Your task to perform on an android device: Clear the shopping cart on costco.com. Search for "logitech g903" on costco.com, select the first entry, and add it to the cart. Image 0: 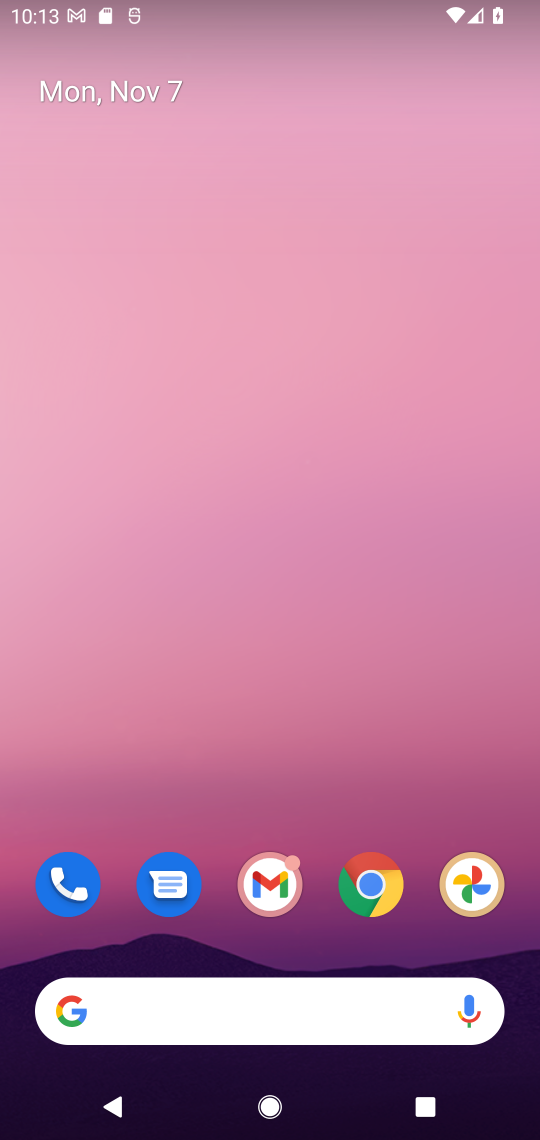
Step 0: click (379, 865)
Your task to perform on an android device: Clear the shopping cart on costco.com. Search for "logitech g903" on costco.com, select the first entry, and add it to the cart. Image 1: 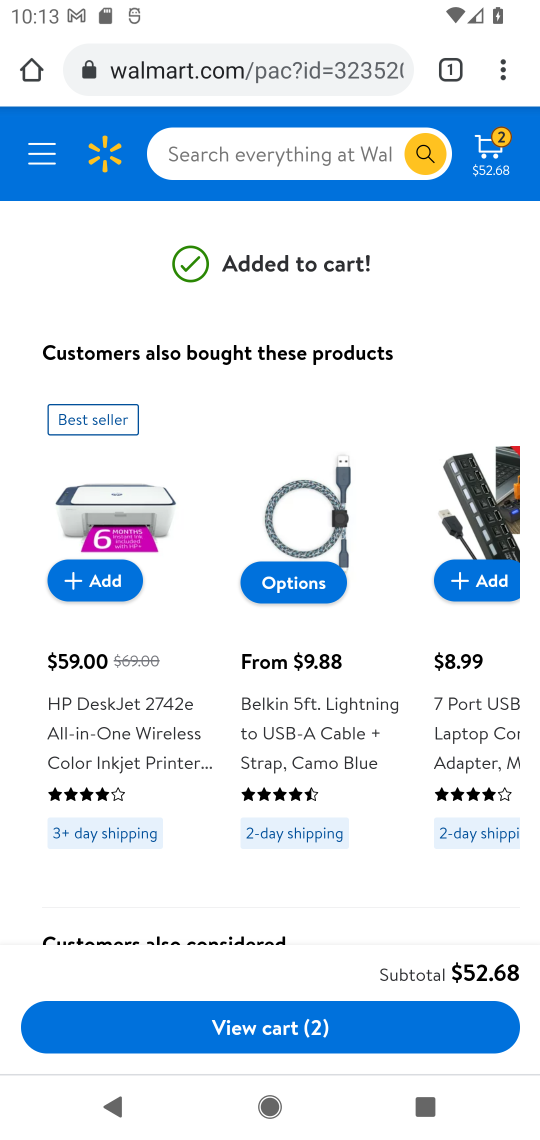
Step 1: click (176, 55)
Your task to perform on an android device: Clear the shopping cart on costco.com. Search for "logitech g903" on costco.com, select the first entry, and add it to the cart. Image 2: 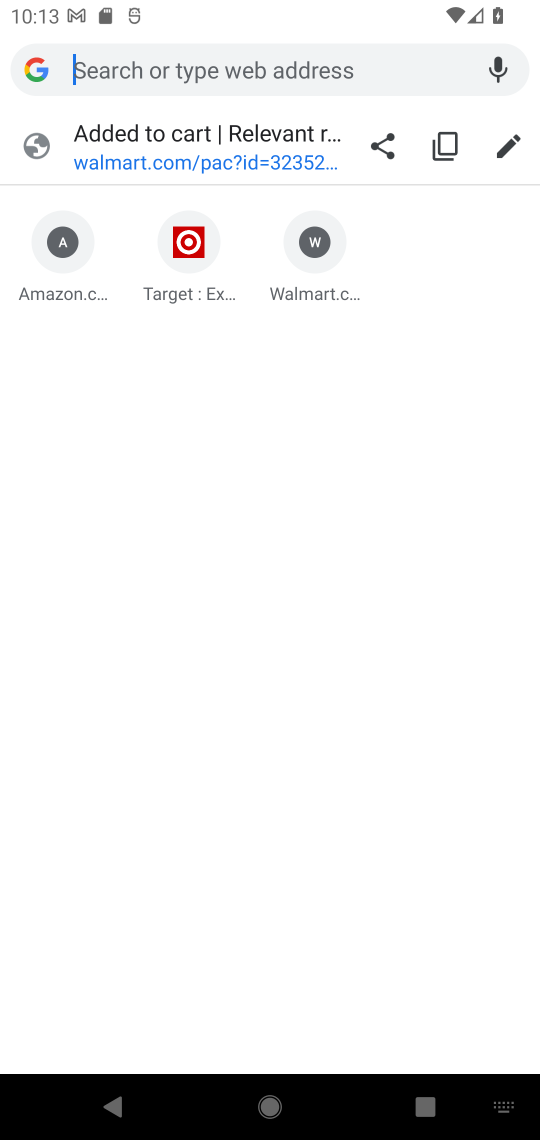
Step 2: type "costco.com"
Your task to perform on an android device: Clear the shopping cart on costco.com. Search for "logitech g903" on costco.com, select the first entry, and add it to the cart. Image 3: 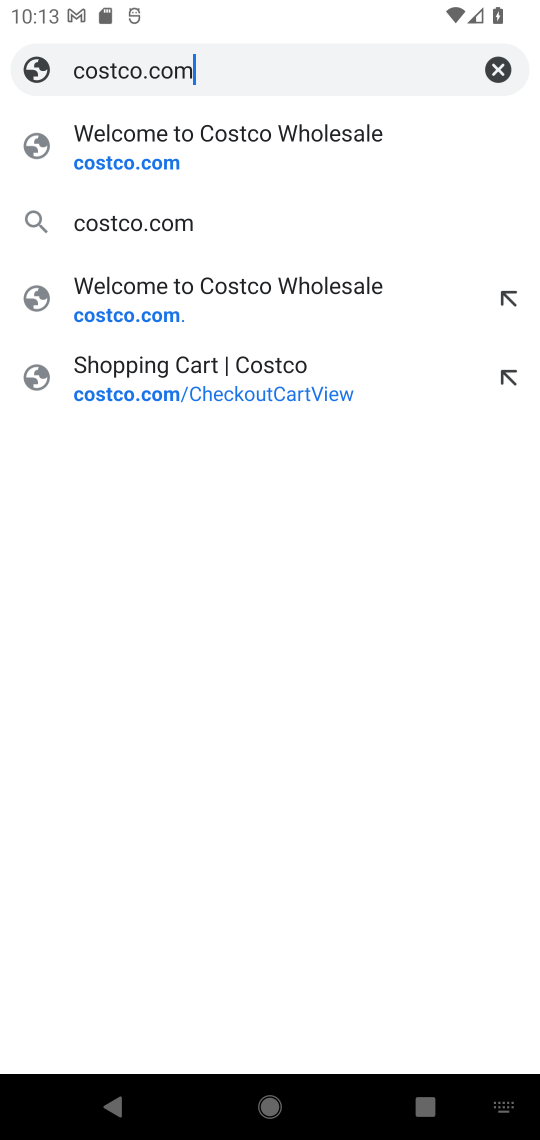
Step 3: click (178, 206)
Your task to perform on an android device: Clear the shopping cart on costco.com. Search for "logitech g903" on costco.com, select the first entry, and add it to the cart. Image 4: 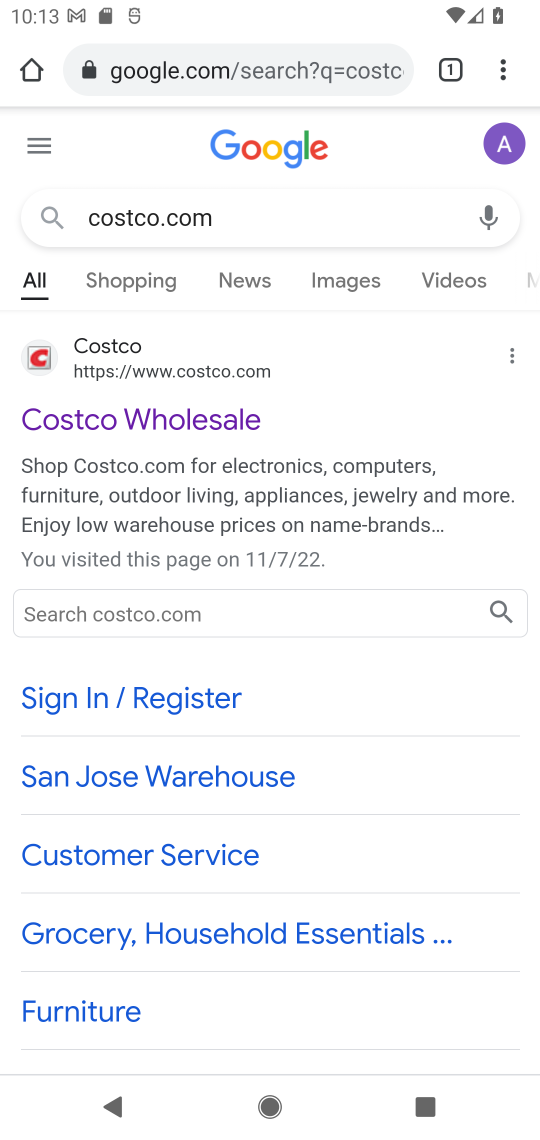
Step 4: click (177, 365)
Your task to perform on an android device: Clear the shopping cart on costco.com. Search for "logitech g903" on costco.com, select the first entry, and add it to the cart. Image 5: 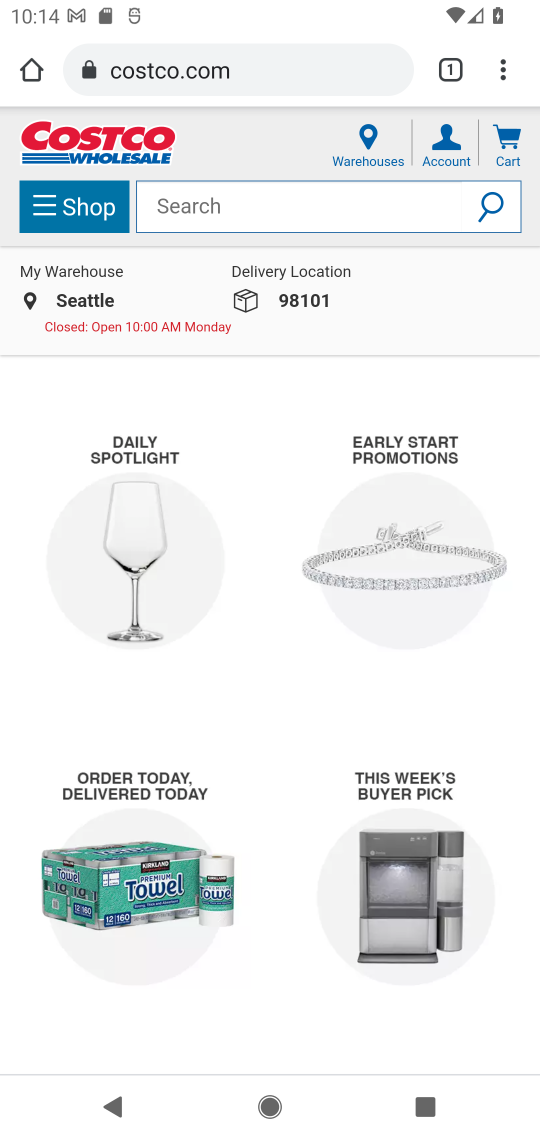
Step 5: click (299, 206)
Your task to perform on an android device: Clear the shopping cart on costco.com. Search for "logitech g903" on costco.com, select the first entry, and add it to the cart. Image 6: 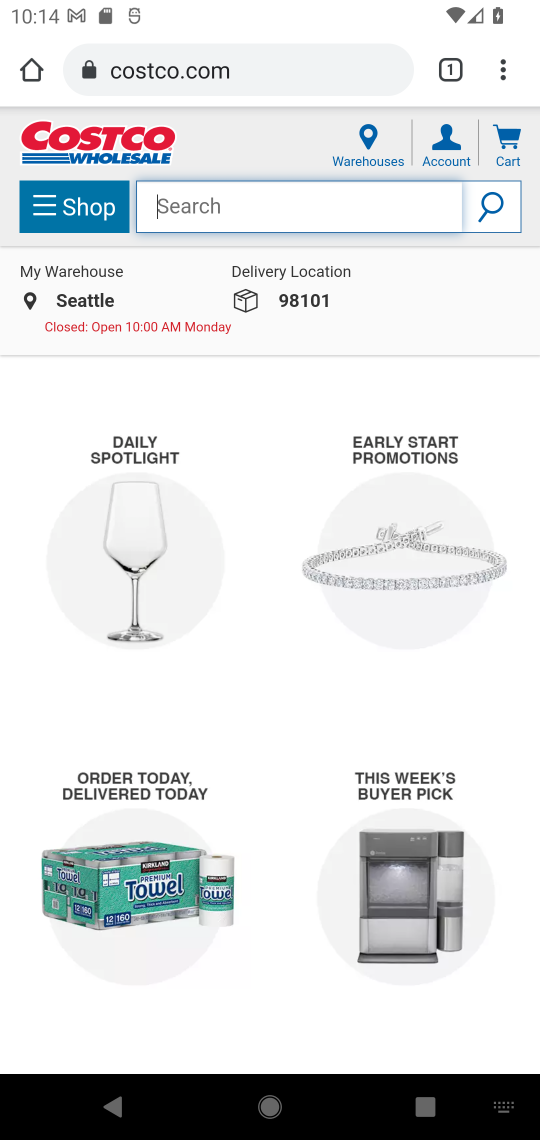
Step 6: type "logitech g903"
Your task to perform on an android device: Clear the shopping cart on costco.com. Search for "logitech g903" on costco.com, select the first entry, and add it to the cart. Image 7: 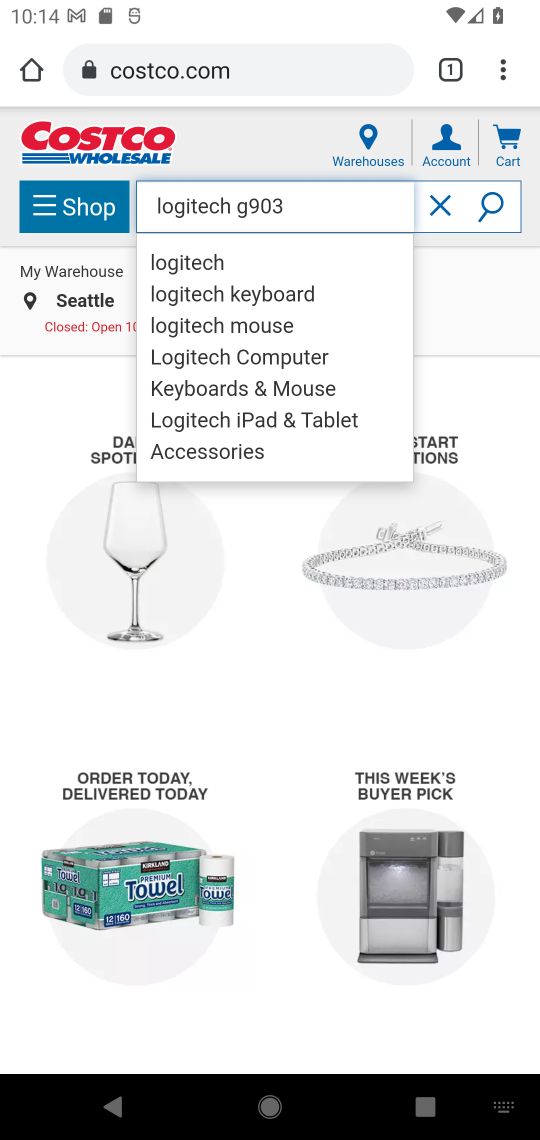
Step 7: click (490, 287)
Your task to perform on an android device: Clear the shopping cart on costco.com. Search for "logitech g903" on costco.com, select the first entry, and add it to the cart. Image 8: 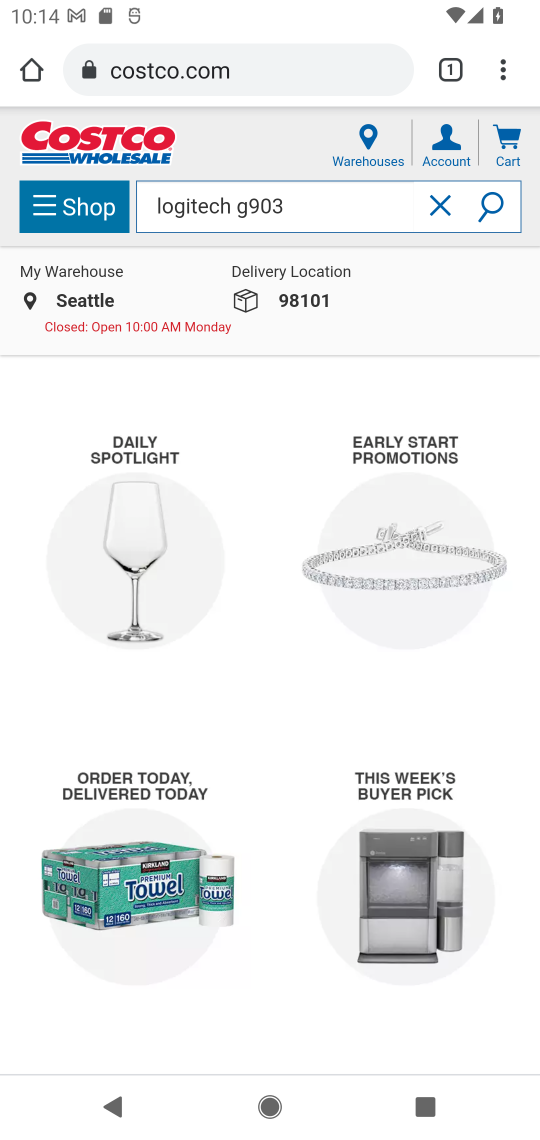
Step 8: task complete